Your task to perform on an android device: turn off smart reply in the gmail app Image 0: 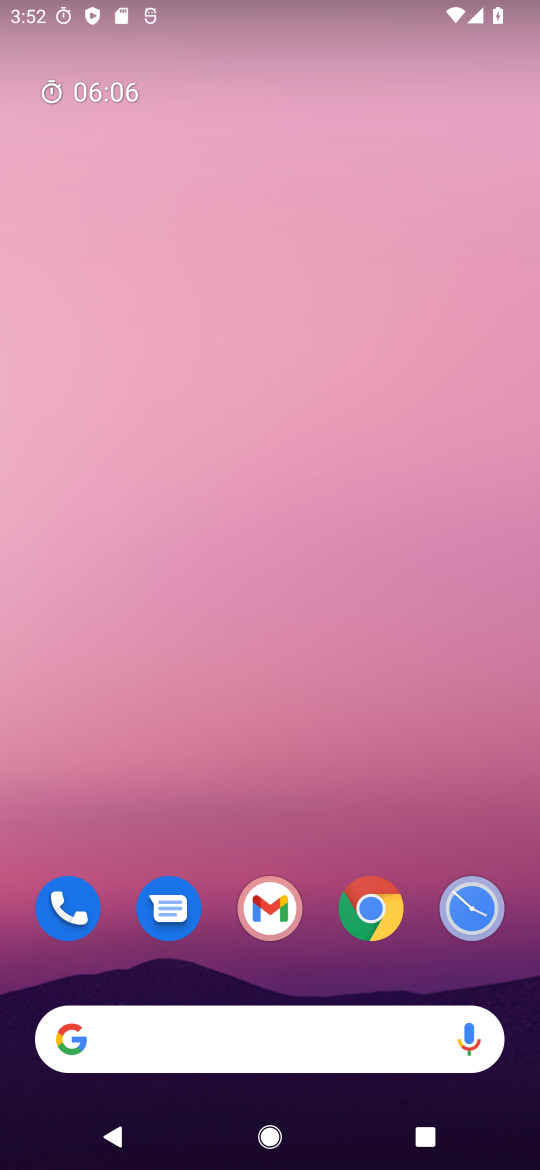
Step 0: press home button
Your task to perform on an android device: turn off smart reply in the gmail app Image 1: 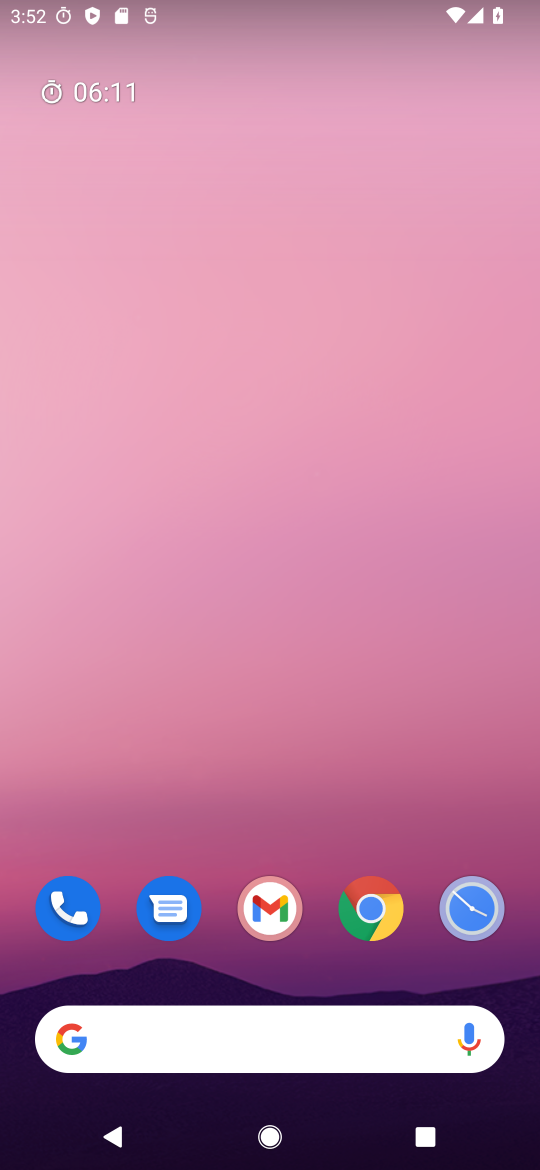
Step 1: drag from (309, 865) to (337, 76)
Your task to perform on an android device: turn off smart reply in the gmail app Image 2: 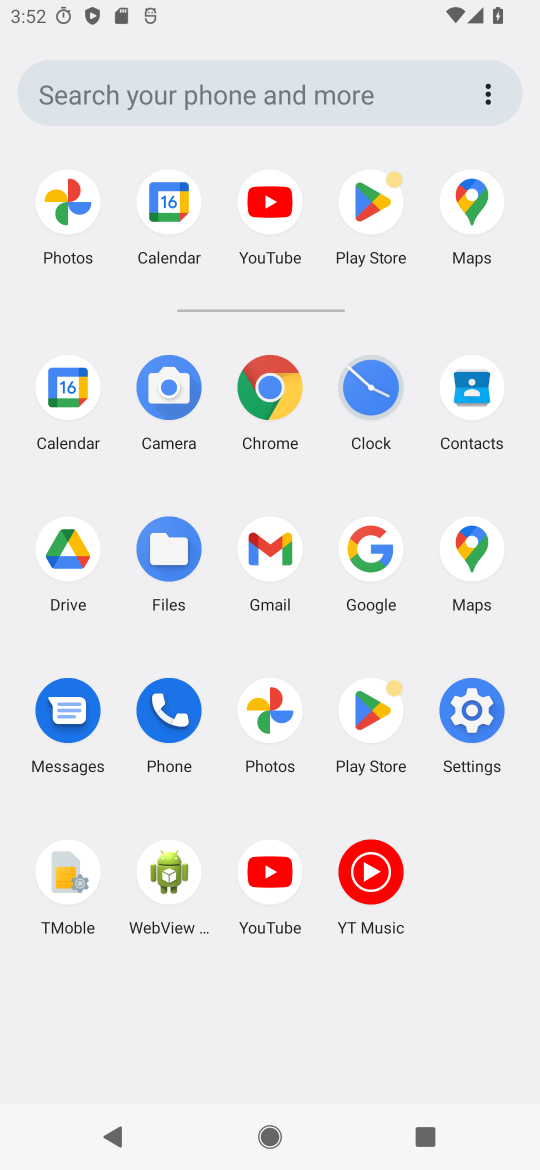
Step 2: click (269, 540)
Your task to perform on an android device: turn off smart reply in the gmail app Image 3: 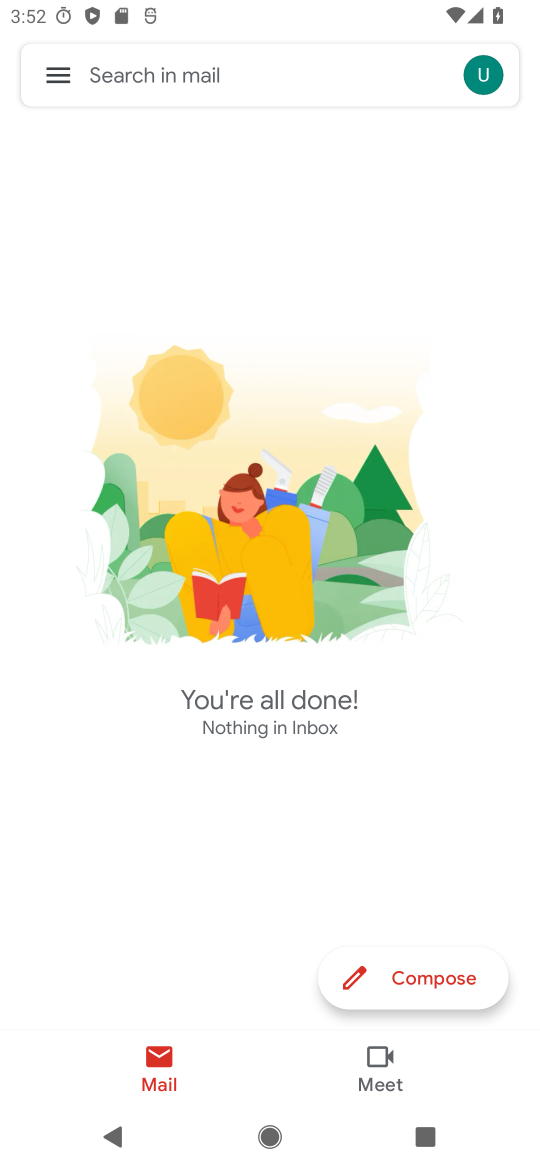
Step 3: click (60, 72)
Your task to perform on an android device: turn off smart reply in the gmail app Image 4: 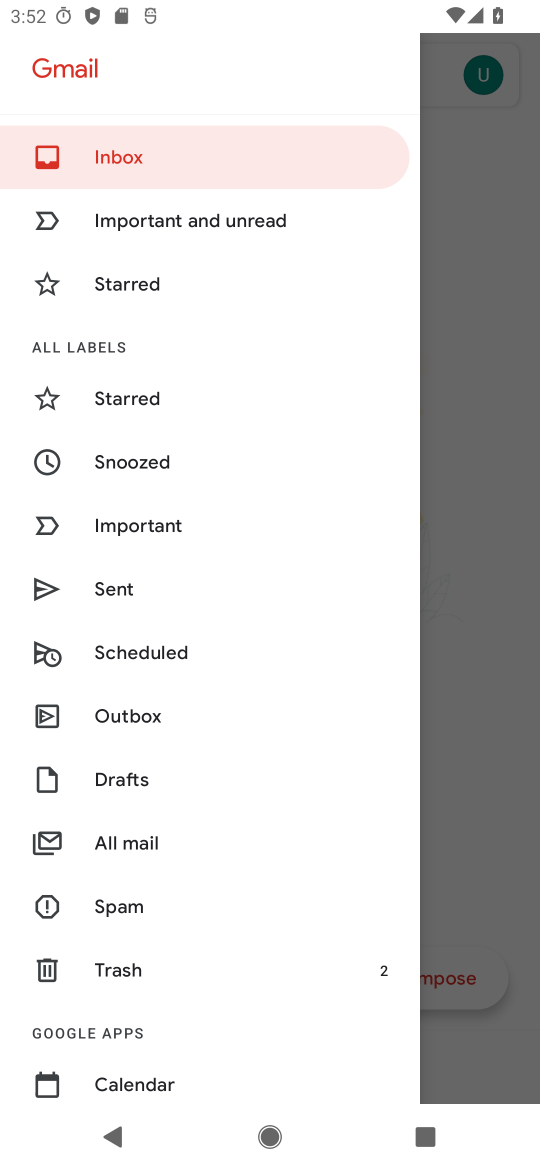
Step 4: drag from (203, 1033) to (267, 264)
Your task to perform on an android device: turn off smart reply in the gmail app Image 5: 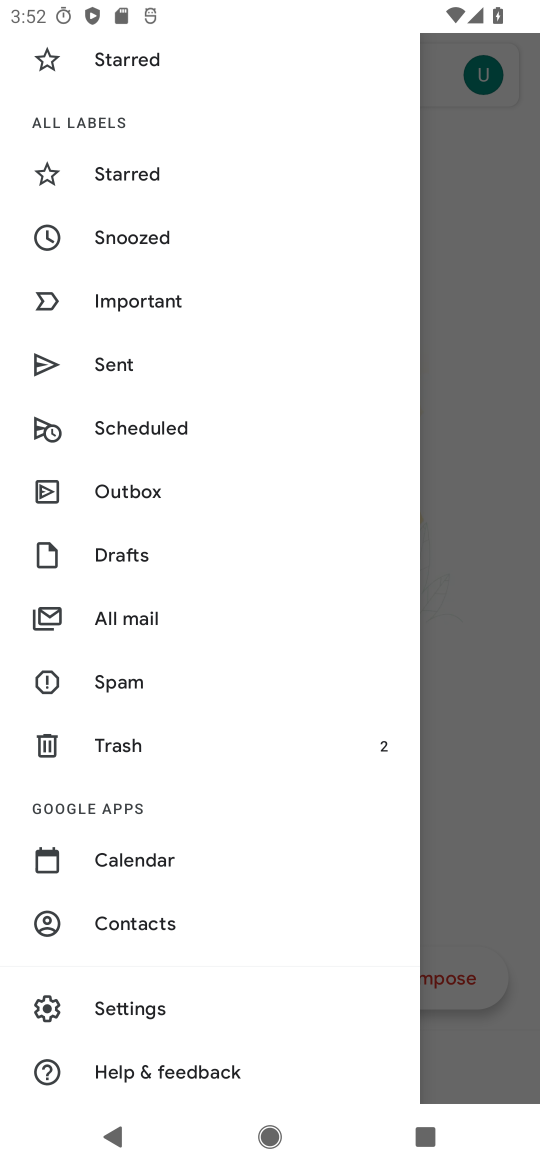
Step 5: click (181, 1005)
Your task to perform on an android device: turn off smart reply in the gmail app Image 6: 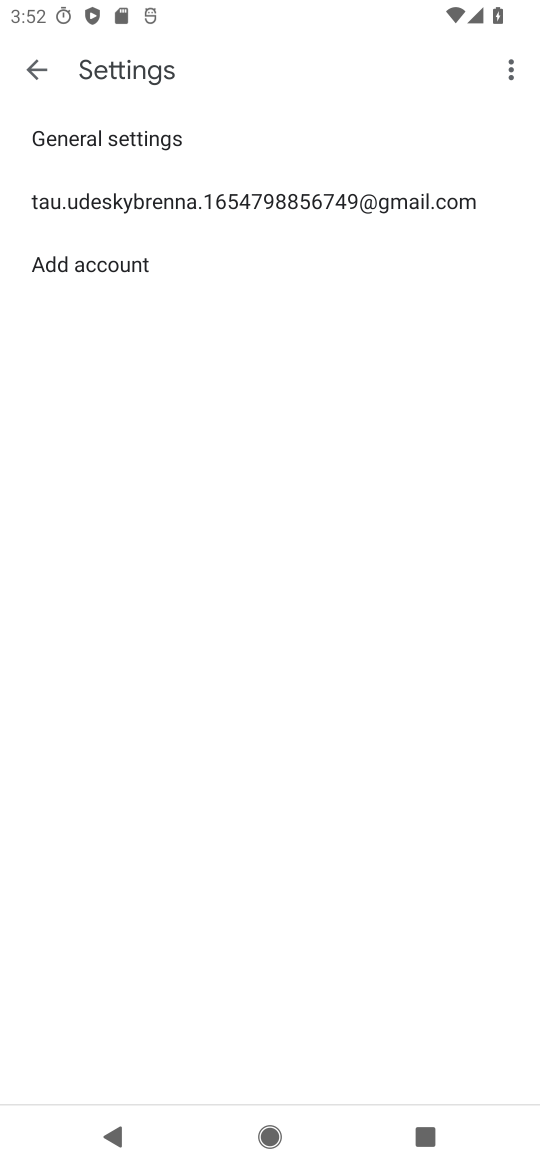
Step 6: click (215, 193)
Your task to perform on an android device: turn off smart reply in the gmail app Image 7: 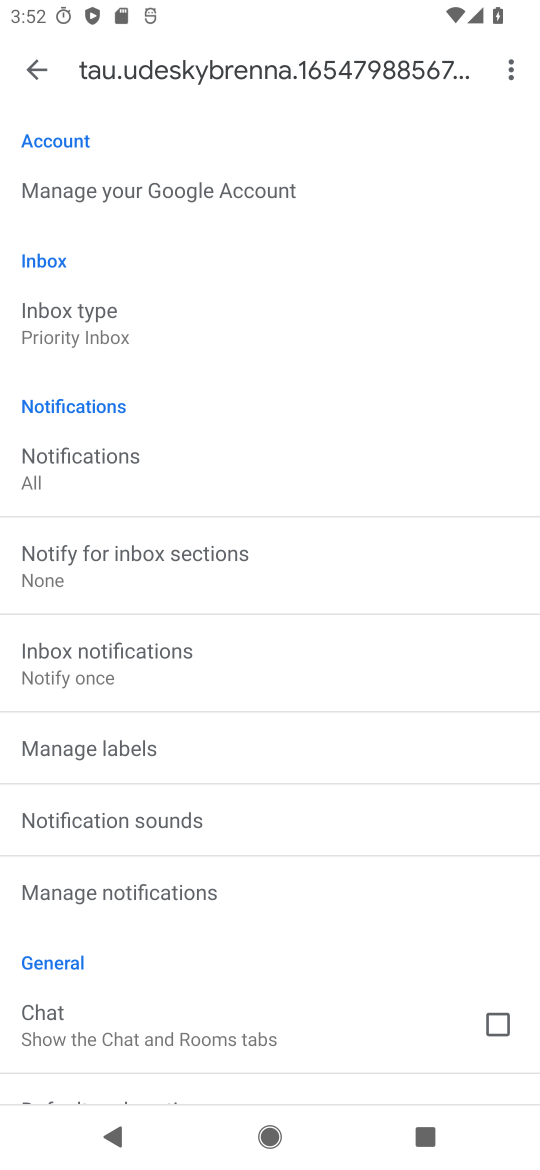
Step 7: drag from (232, 977) to (318, 284)
Your task to perform on an android device: turn off smart reply in the gmail app Image 8: 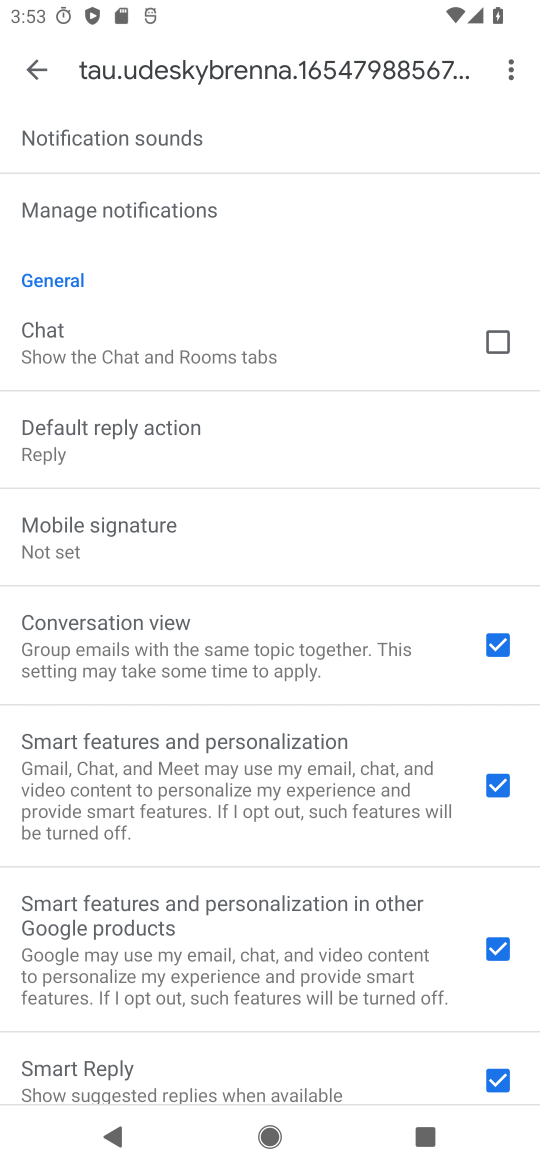
Step 8: click (502, 1074)
Your task to perform on an android device: turn off smart reply in the gmail app Image 9: 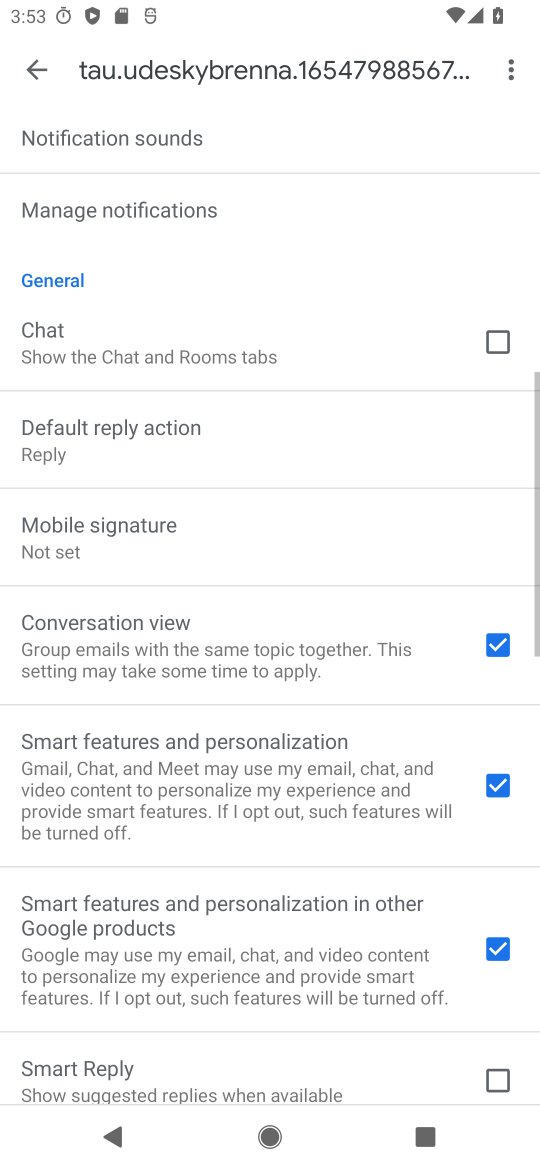
Step 9: task complete